Your task to perform on an android device: move a message to another label in the gmail app Image 0: 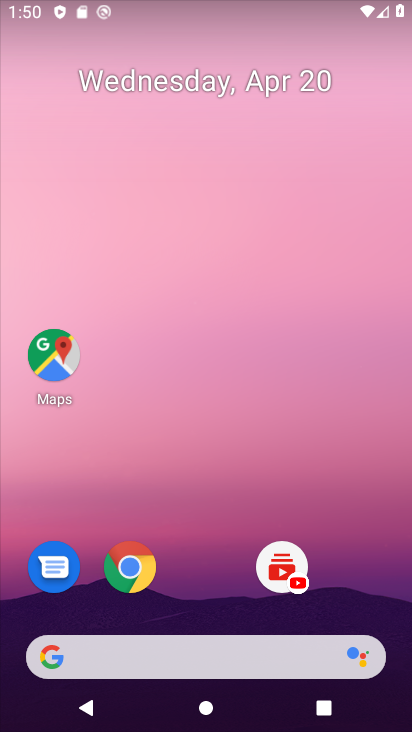
Step 0: drag from (221, 585) to (314, 137)
Your task to perform on an android device: move a message to another label in the gmail app Image 1: 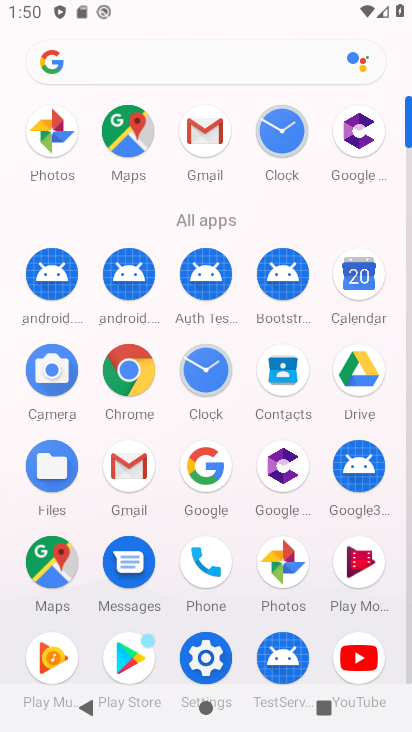
Step 1: click (110, 456)
Your task to perform on an android device: move a message to another label in the gmail app Image 2: 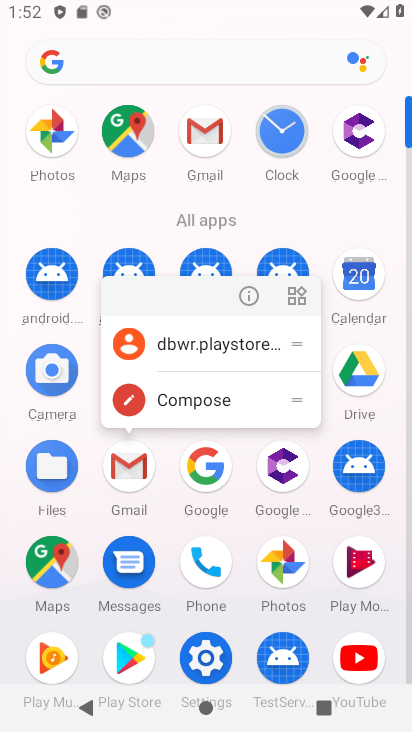
Step 2: click (245, 282)
Your task to perform on an android device: move a message to another label in the gmail app Image 3: 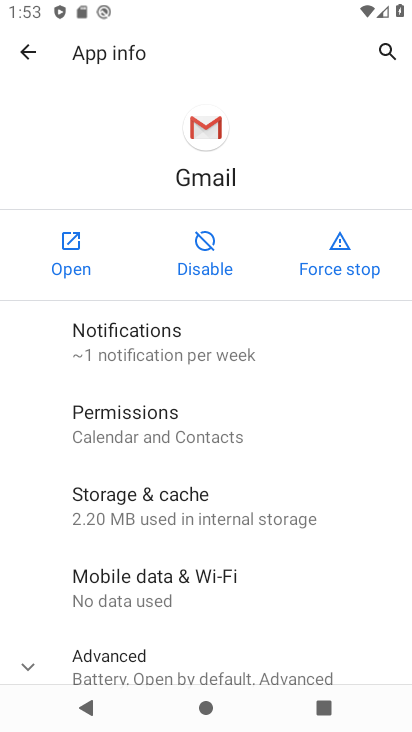
Step 3: click (70, 250)
Your task to perform on an android device: move a message to another label in the gmail app Image 4: 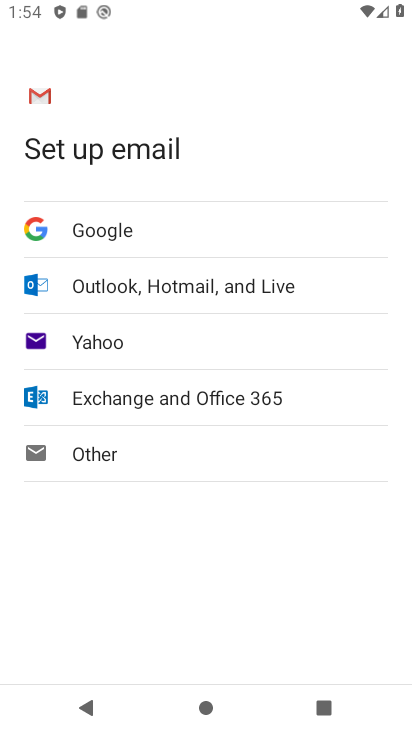
Step 4: drag from (179, 490) to (204, 181)
Your task to perform on an android device: move a message to another label in the gmail app Image 5: 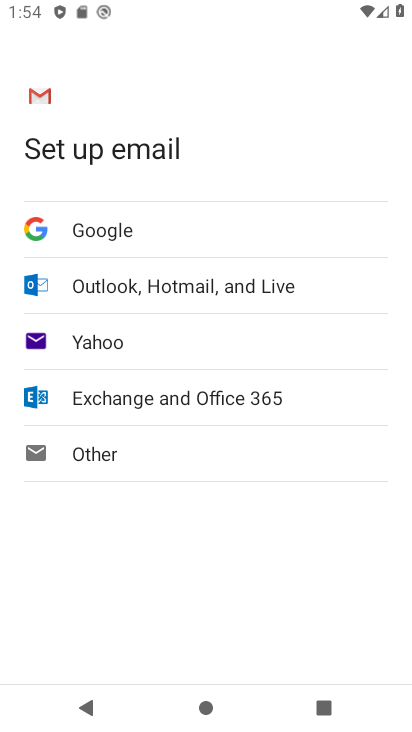
Step 5: click (143, 244)
Your task to perform on an android device: move a message to another label in the gmail app Image 6: 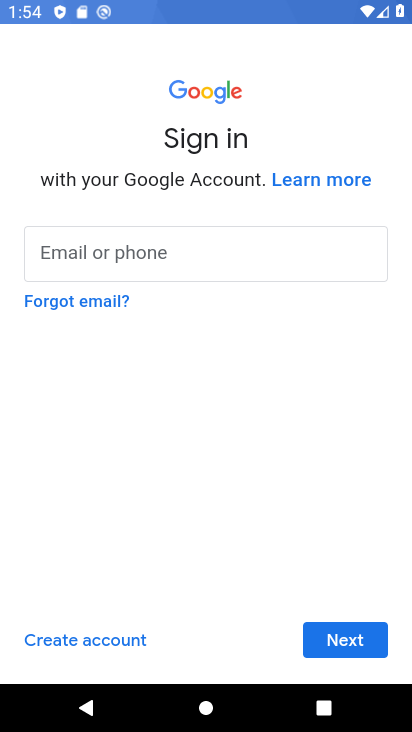
Step 6: task complete